Your task to perform on an android device: clear all cookies in the chrome app Image 0: 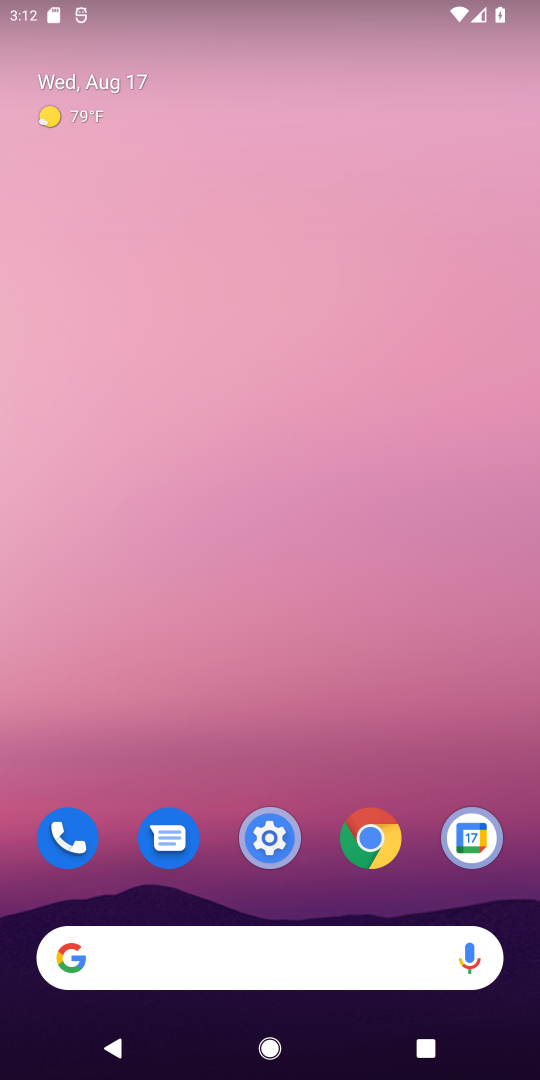
Step 0: click (346, 835)
Your task to perform on an android device: clear all cookies in the chrome app Image 1: 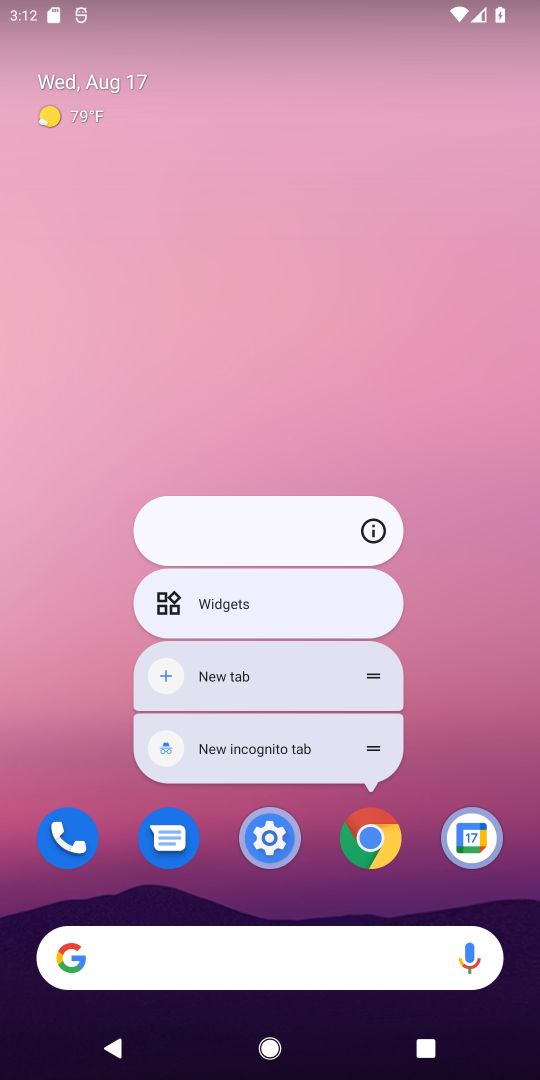
Step 1: click (378, 821)
Your task to perform on an android device: clear all cookies in the chrome app Image 2: 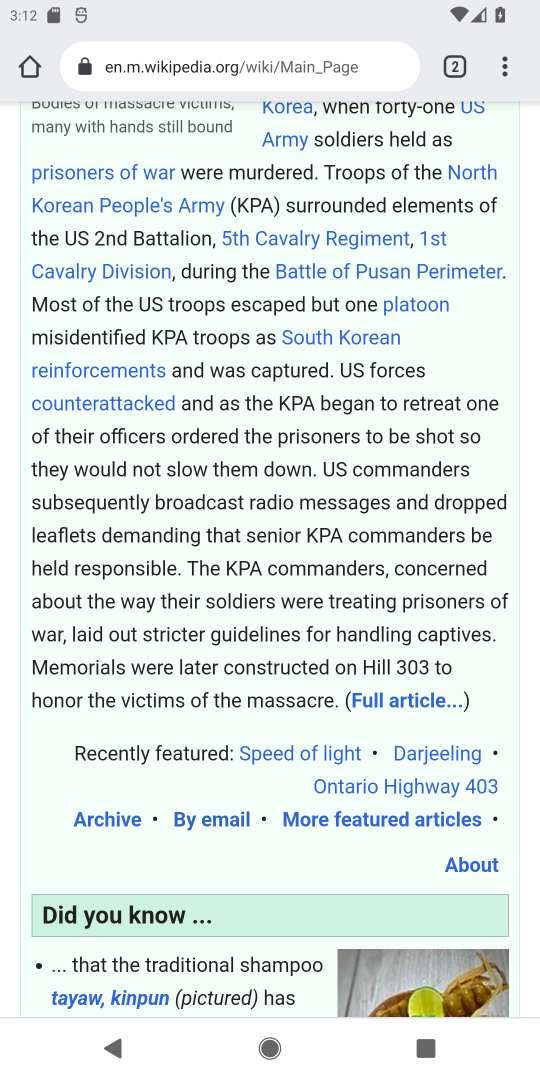
Step 2: click (513, 69)
Your task to perform on an android device: clear all cookies in the chrome app Image 3: 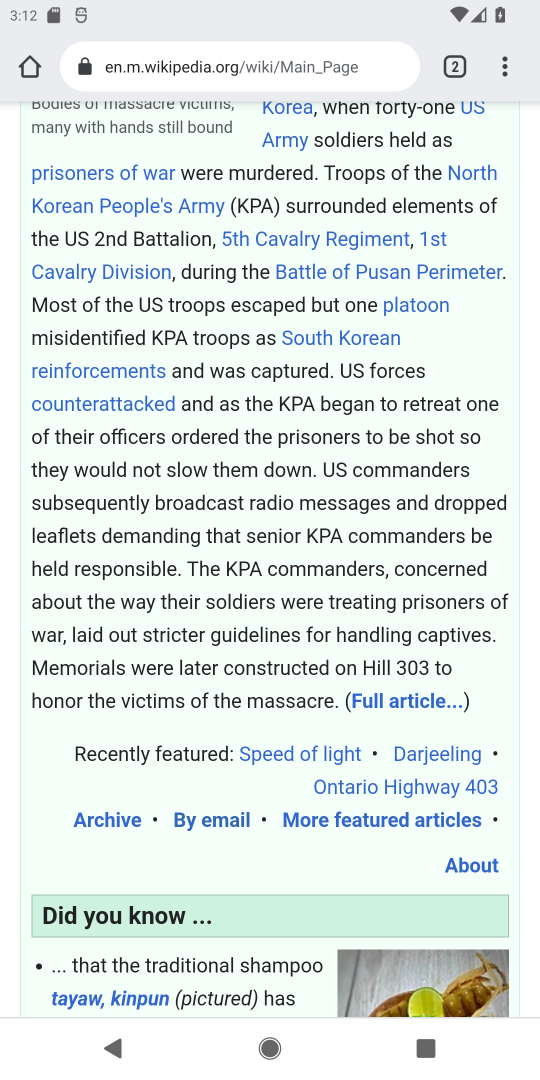
Step 3: click (513, 69)
Your task to perform on an android device: clear all cookies in the chrome app Image 4: 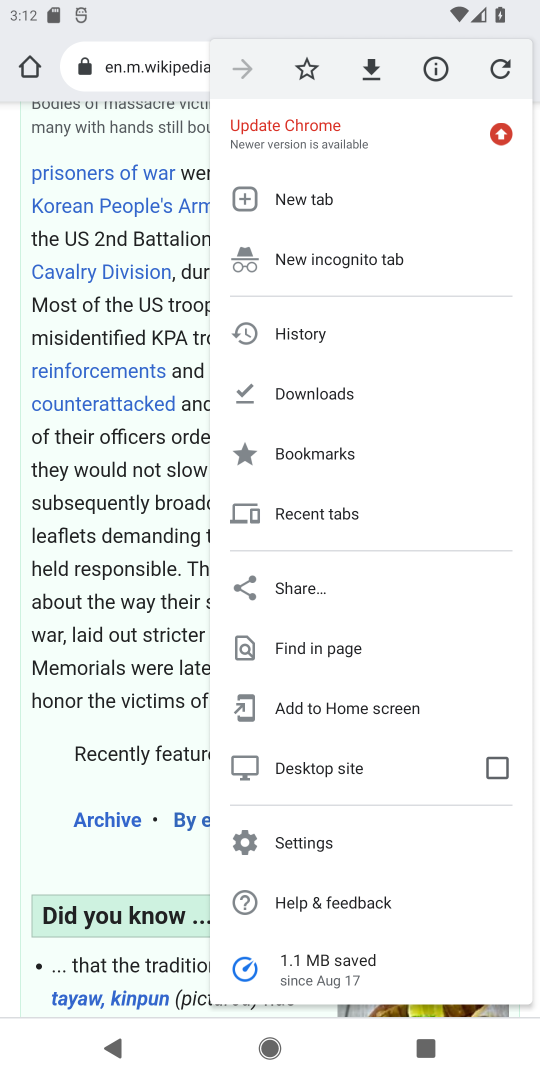
Step 4: click (284, 841)
Your task to perform on an android device: clear all cookies in the chrome app Image 5: 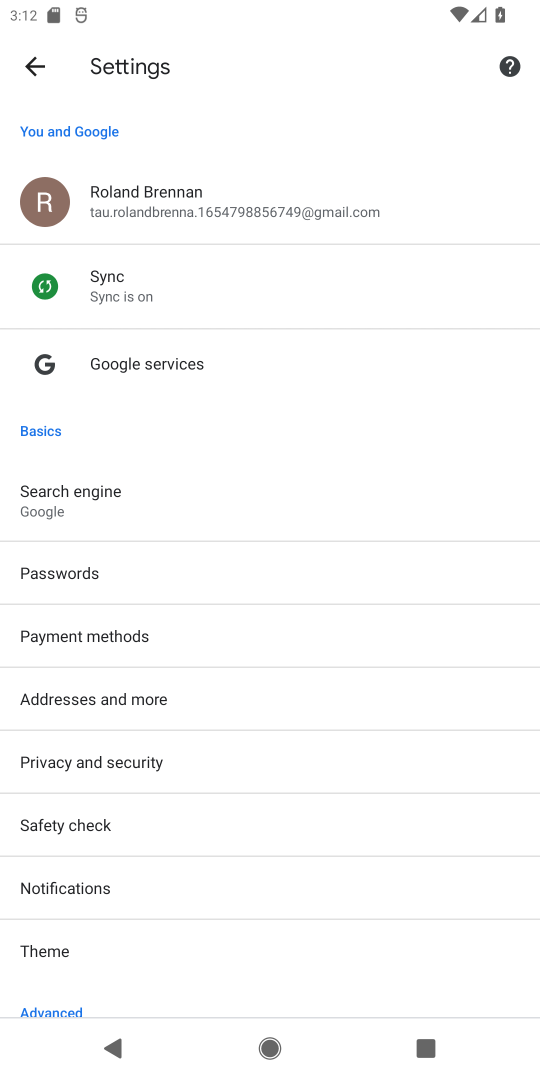
Step 5: click (117, 778)
Your task to perform on an android device: clear all cookies in the chrome app Image 6: 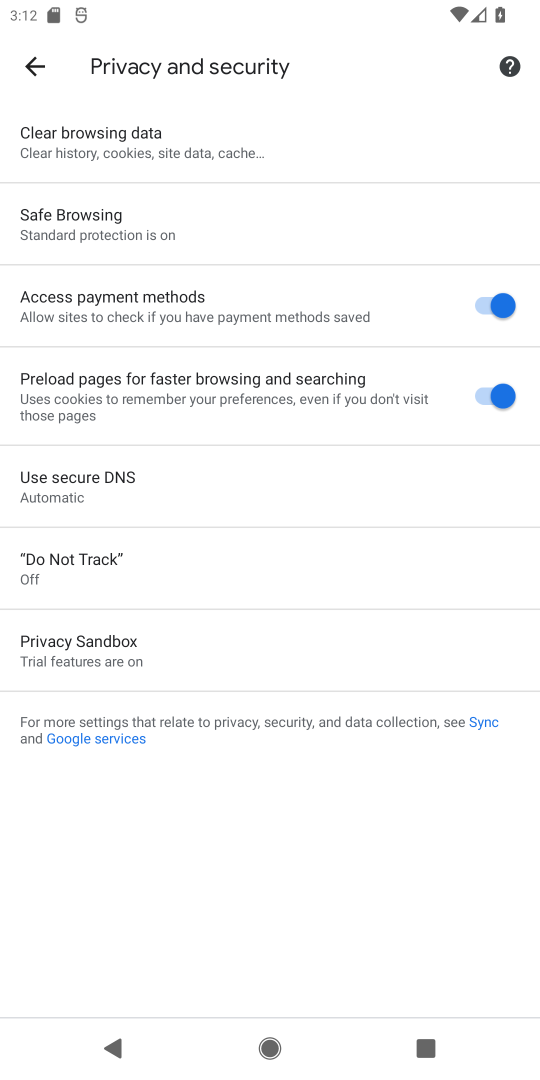
Step 6: click (160, 140)
Your task to perform on an android device: clear all cookies in the chrome app Image 7: 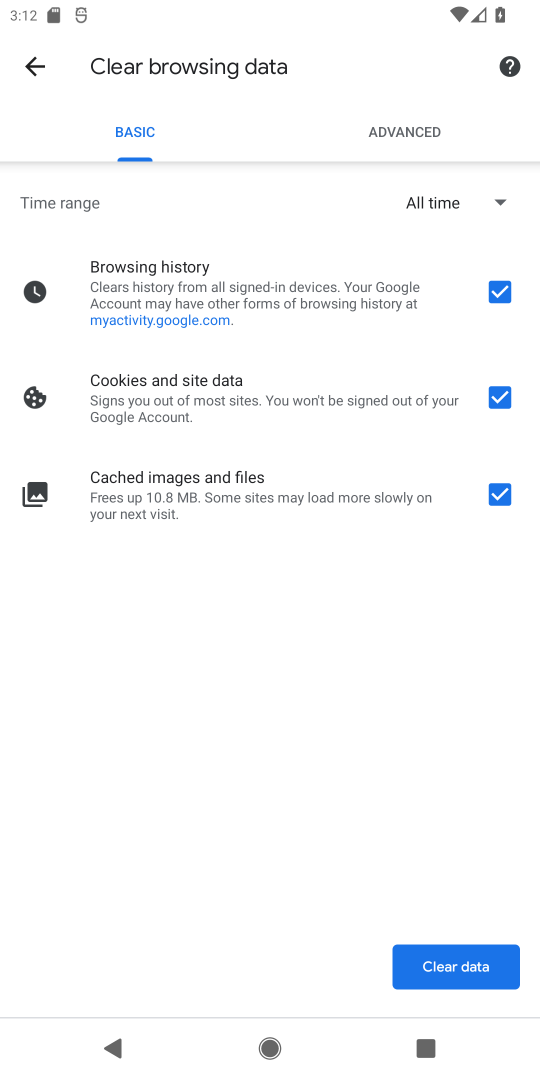
Step 7: click (422, 960)
Your task to perform on an android device: clear all cookies in the chrome app Image 8: 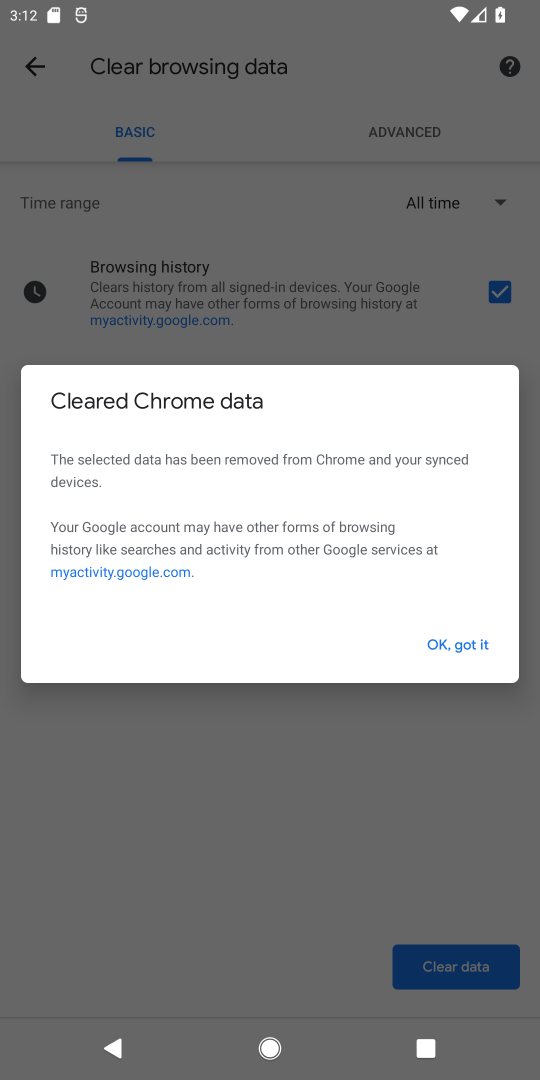
Step 8: click (462, 642)
Your task to perform on an android device: clear all cookies in the chrome app Image 9: 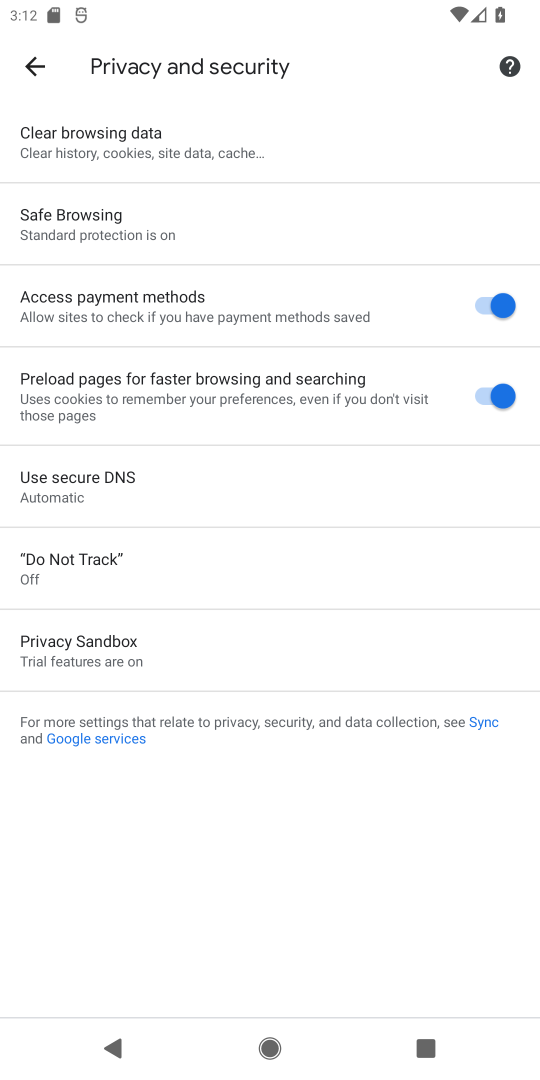
Step 9: task complete